Your task to perform on an android device: When is my next appointment? Image 0: 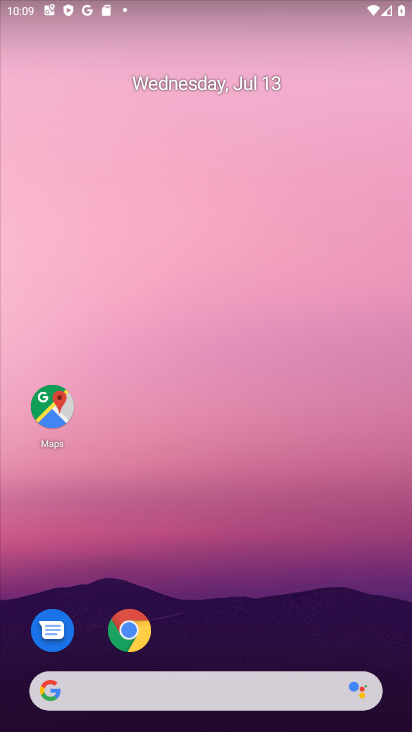
Step 0: drag from (256, 640) to (216, 122)
Your task to perform on an android device: When is my next appointment? Image 1: 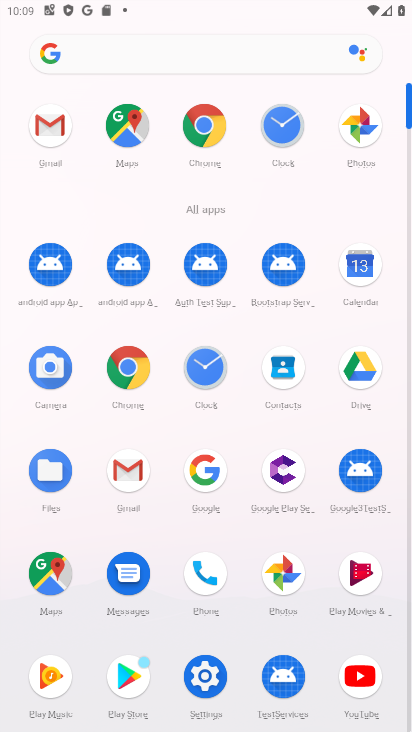
Step 1: click (362, 276)
Your task to perform on an android device: When is my next appointment? Image 2: 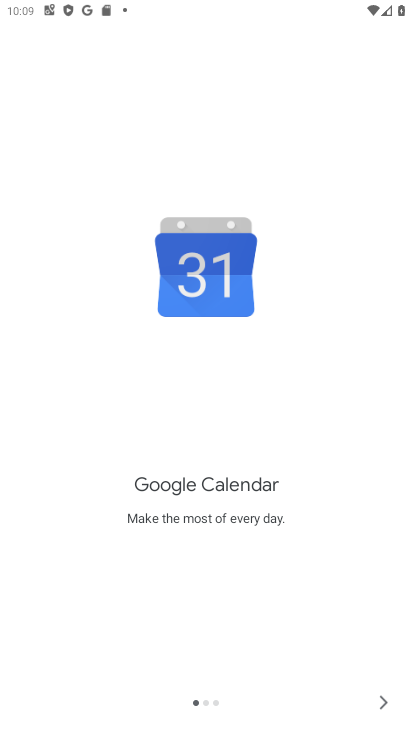
Step 2: click (381, 703)
Your task to perform on an android device: When is my next appointment? Image 3: 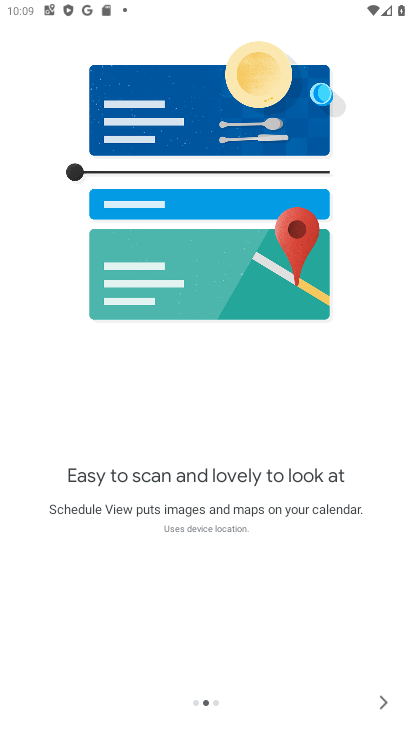
Step 3: click (381, 703)
Your task to perform on an android device: When is my next appointment? Image 4: 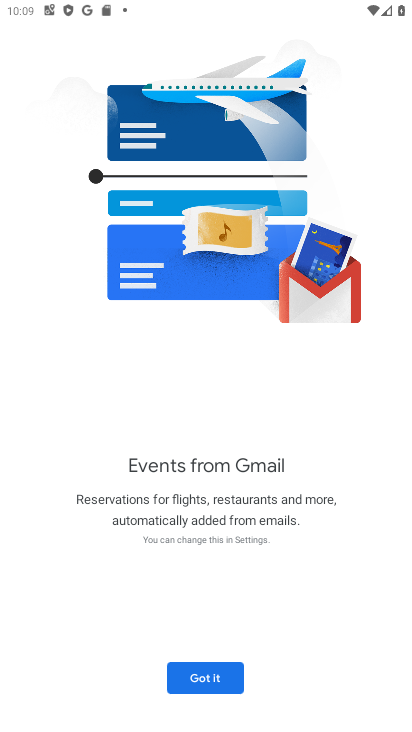
Step 4: click (225, 690)
Your task to perform on an android device: When is my next appointment? Image 5: 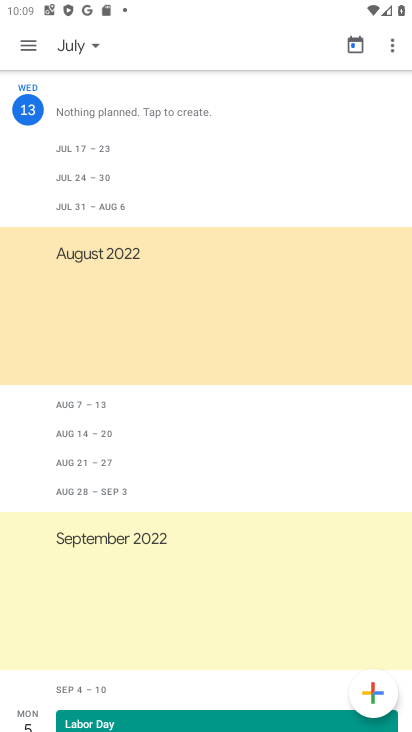
Step 5: click (25, 38)
Your task to perform on an android device: When is my next appointment? Image 6: 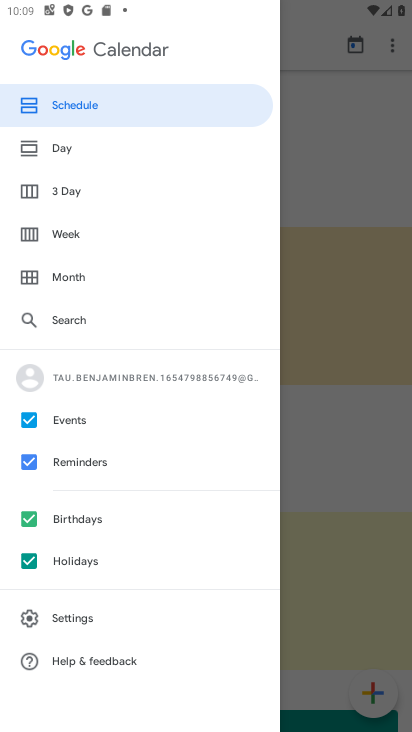
Step 6: click (51, 151)
Your task to perform on an android device: When is my next appointment? Image 7: 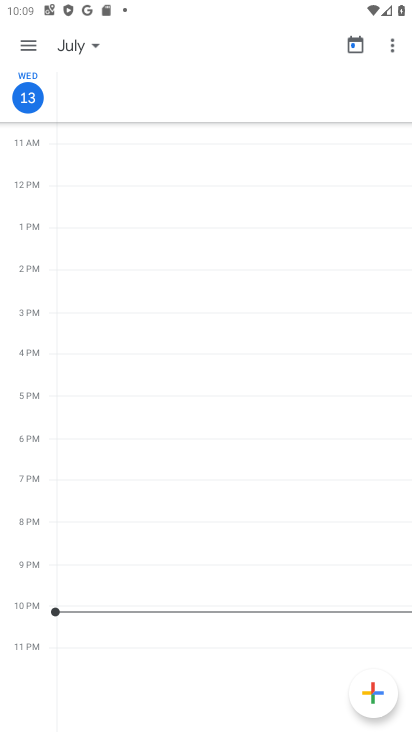
Step 7: task complete